Your task to perform on an android device: empty trash in the gmail app Image 0: 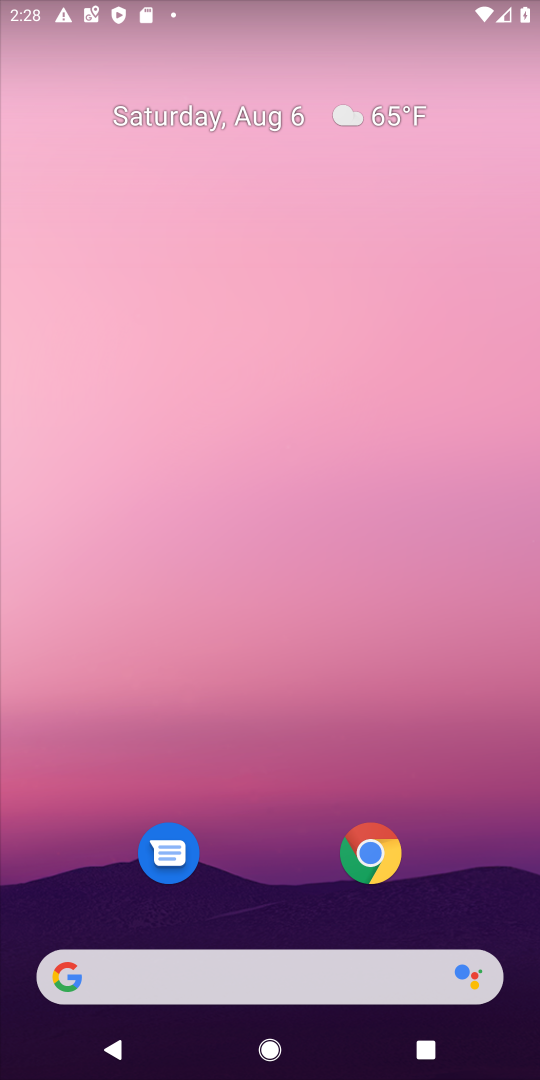
Step 0: drag from (236, 834) to (309, 85)
Your task to perform on an android device: empty trash in the gmail app Image 1: 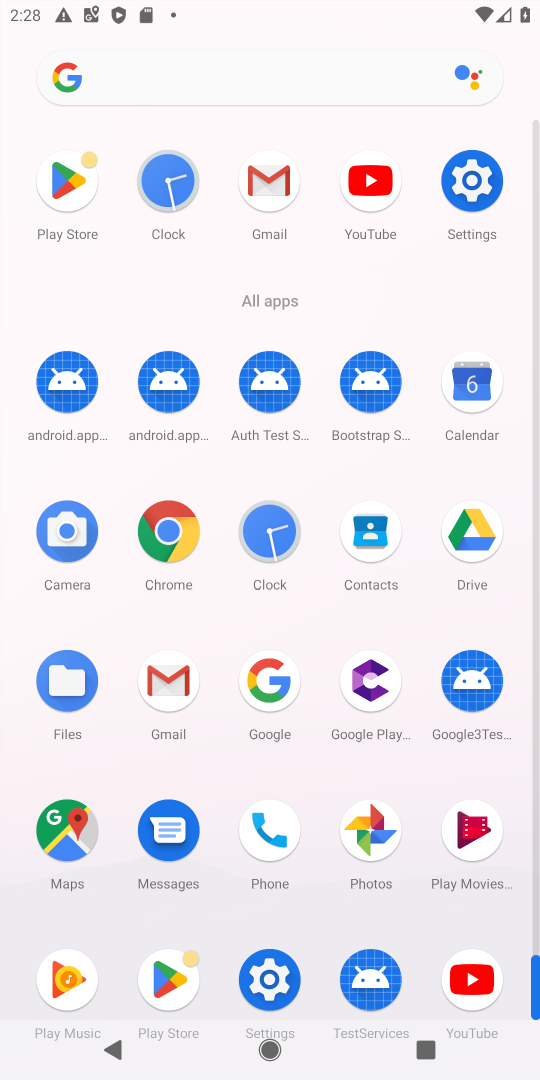
Step 1: click (281, 182)
Your task to perform on an android device: empty trash in the gmail app Image 2: 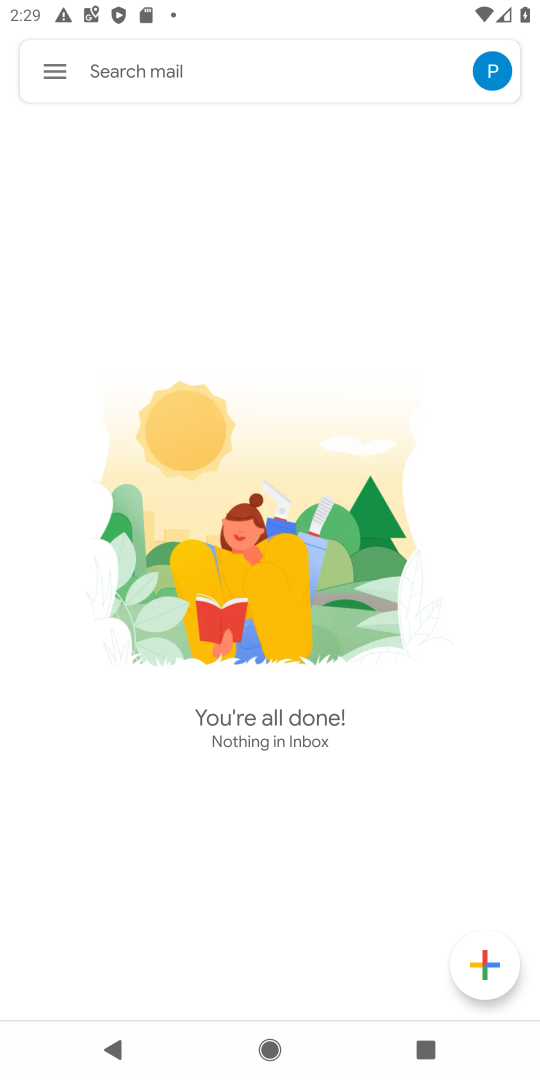
Step 2: click (52, 71)
Your task to perform on an android device: empty trash in the gmail app Image 3: 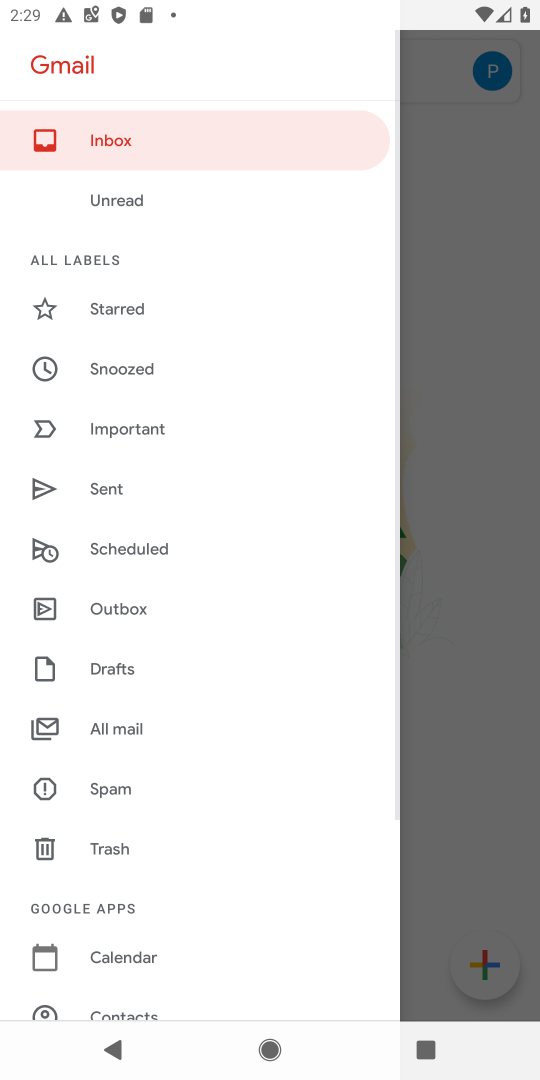
Step 3: click (109, 837)
Your task to perform on an android device: empty trash in the gmail app Image 4: 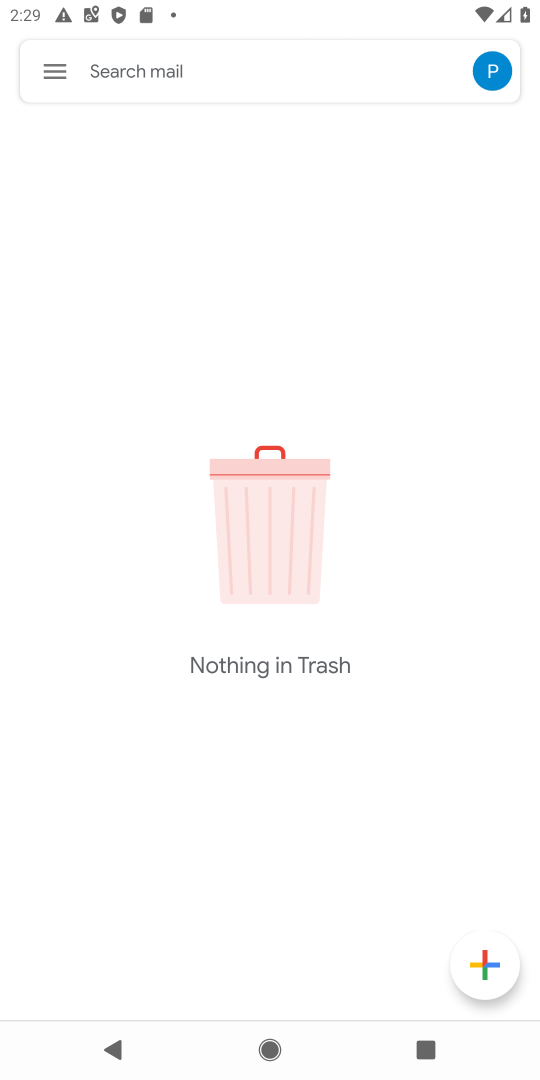
Step 4: task complete